Your task to perform on an android device: see creations saved in the google photos Image 0: 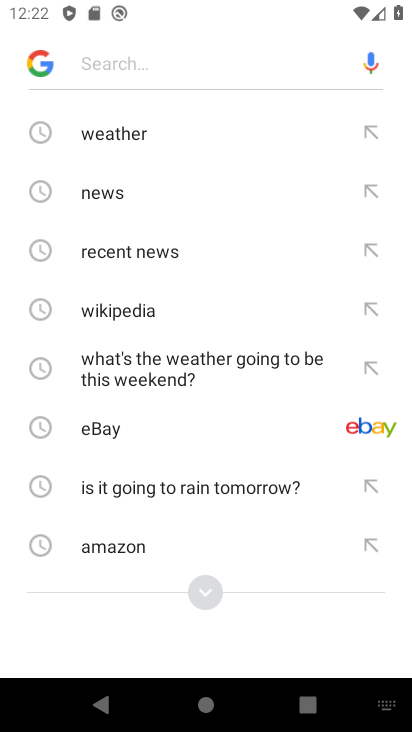
Step 0: press home button
Your task to perform on an android device: see creations saved in the google photos Image 1: 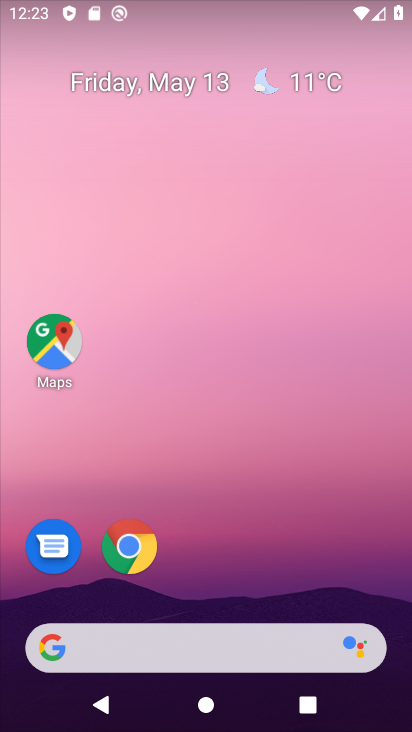
Step 1: drag from (199, 676) to (213, 279)
Your task to perform on an android device: see creations saved in the google photos Image 2: 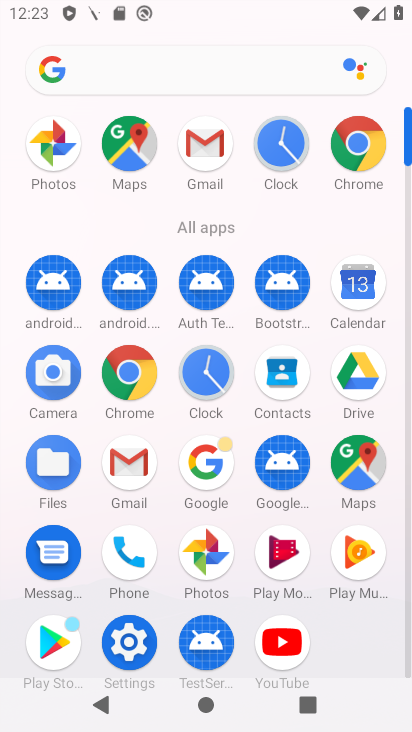
Step 2: click (223, 569)
Your task to perform on an android device: see creations saved in the google photos Image 3: 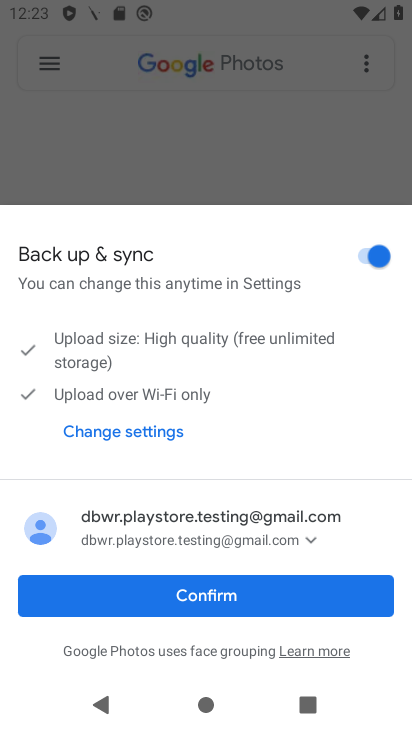
Step 3: click (227, 604)
Your task to perform on an android device: see creations saved in the google photos Image 4: 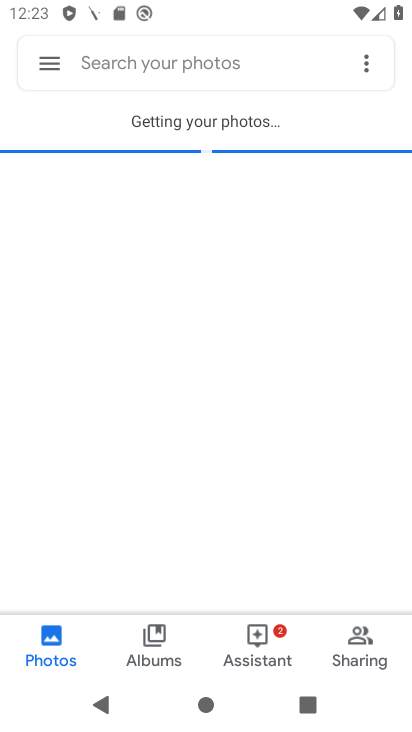
Step 4: click (49, 68)
Your task to perform on an android device: see creations saved in the google photos Image 5: 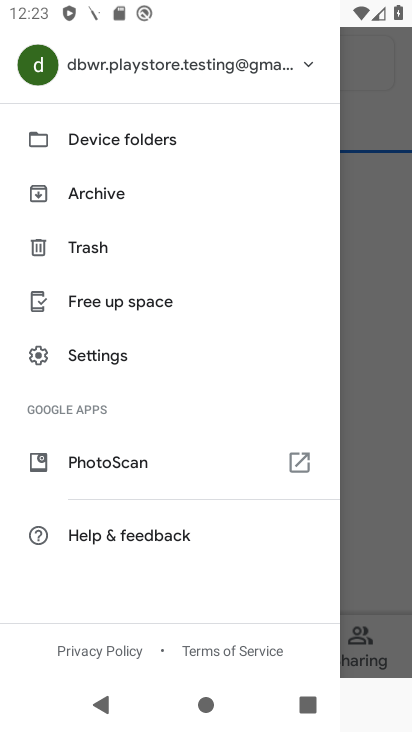
Step 5: click (378, 402)
Your task to perform on an android device: see creations saved in the google photos Image 6: 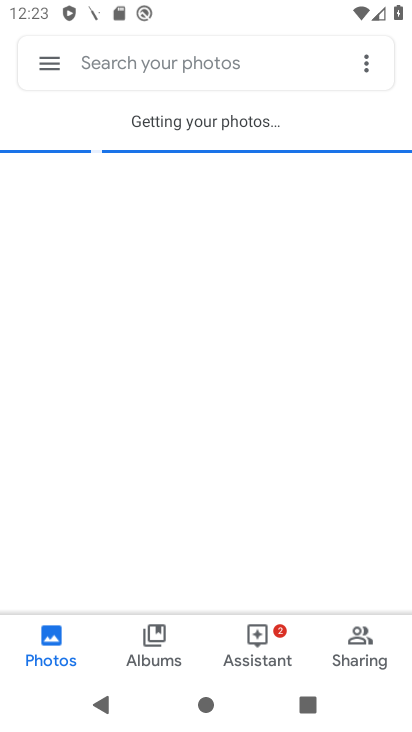
Step 6: click (272, 661)
Your task to perform on an android device: see creations saved in the google photos Image 7: 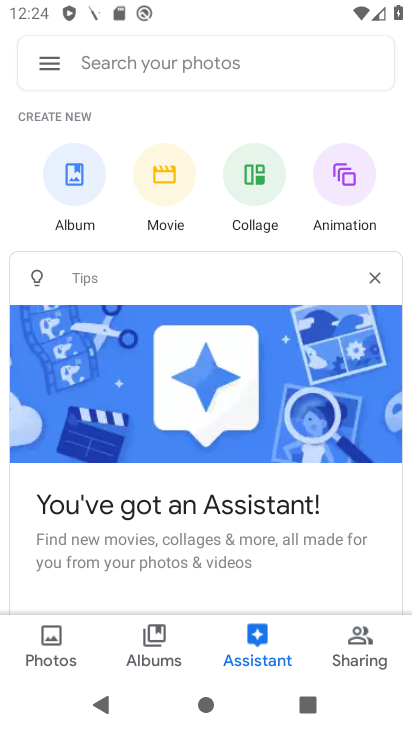
Step 7: task complete